Your task to perform on an android device: turn on the 24-hour format for clock Image 0: 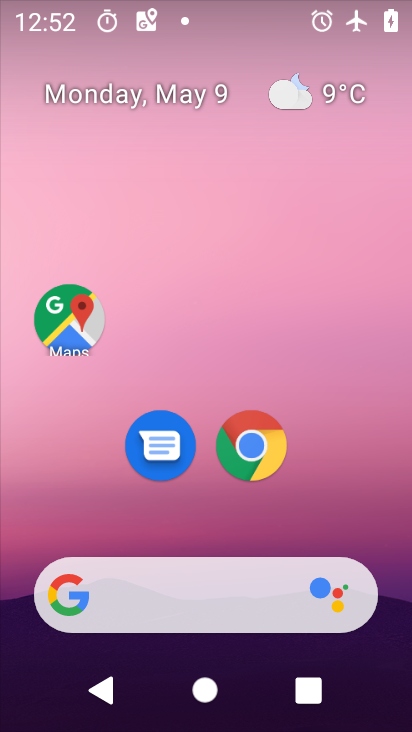
Step 0: drag from (358, 553) to (410, 85)
Your task to perform on an android device: turn on the 24-hour format for clock Image 1: 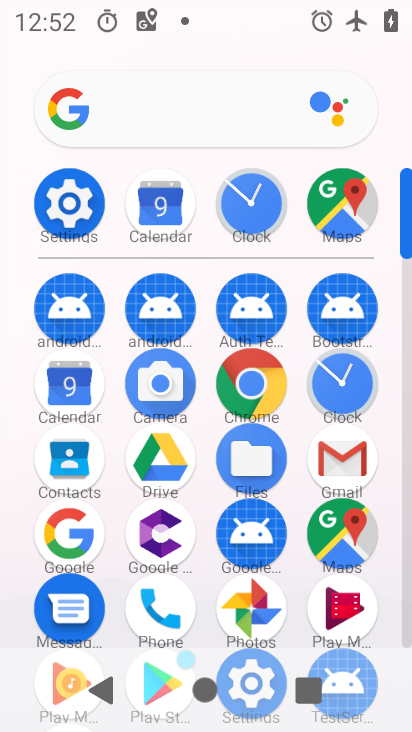
Step 1: click (255, 198)
Your task to perform on an android device: turn on the 24-hour format for clock Image 2: 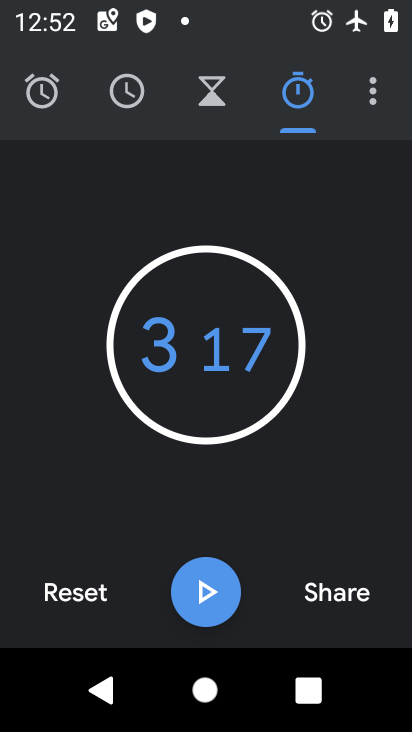
Step 2: click (375, 94)
Your task to perform on an android device: turn on the 24-hour format for clock Image 3: 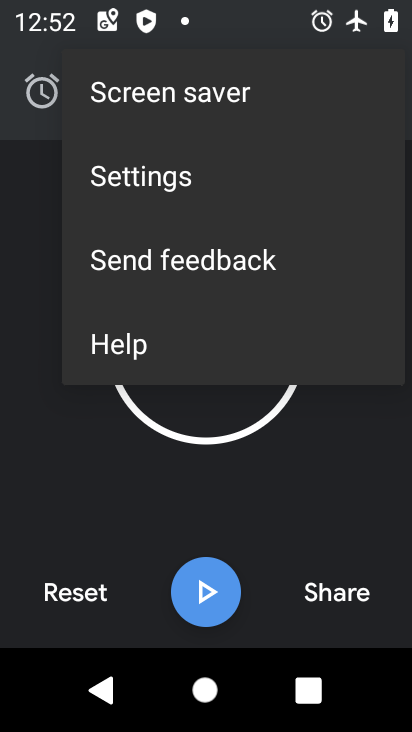
Step 3: click (131, 182)
Your task to perform on an android device: turn on the 24-hour format for clock Image 4: 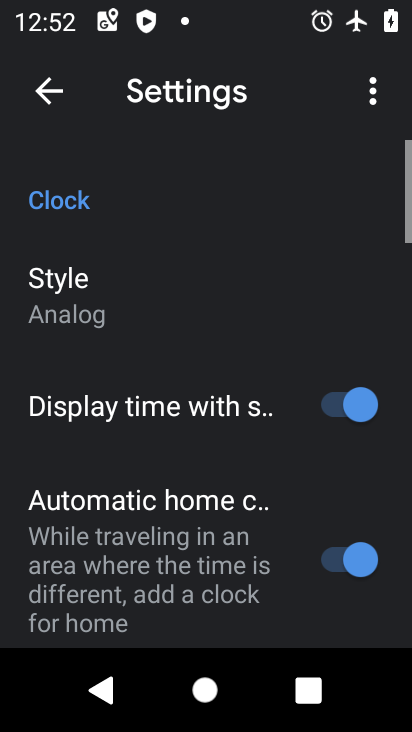
Step 4: drag from (183, 565) to (220, 204)
Your task to perform on an android device: turn on the 24-hour format for clock Image 5: 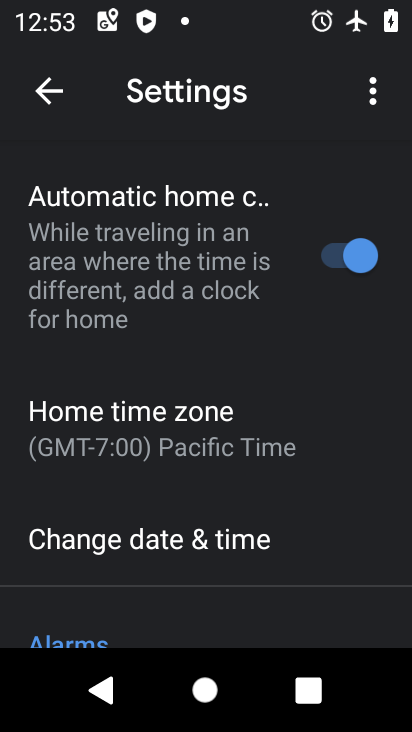
Step 5: click (162, 547)
Your task to perform on an android device: turn on the 24-hour format for clock Image 6: 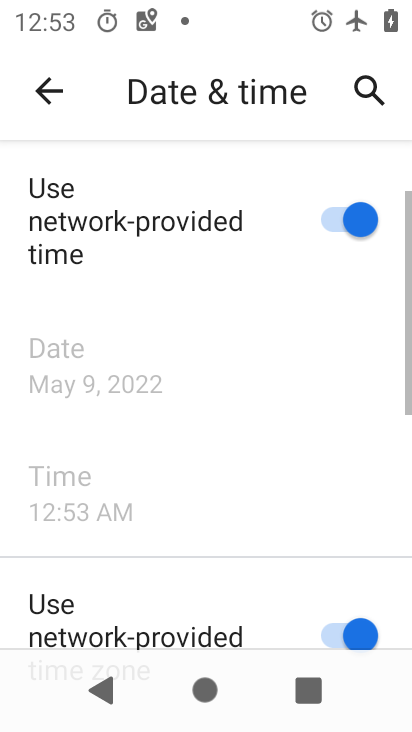
Step 6: drag from (204, 276) to (207, 124)
Your task to perform on an android device: turn on the 24-hour format for clock Image 7: 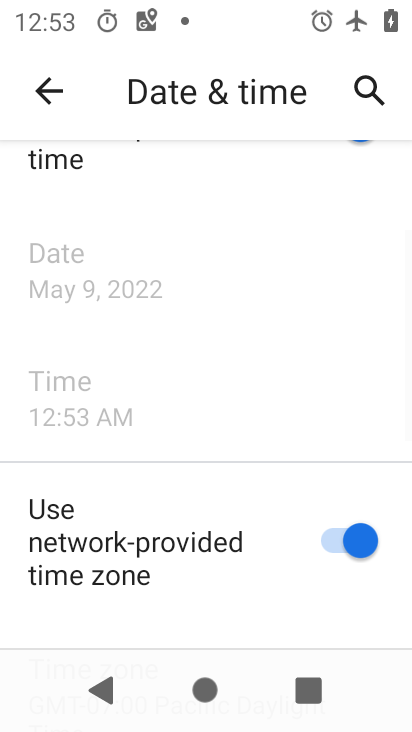
Step 7: drag from (196, 581) to (221, 144)
Your task to perform on an android device: turn on the 24-hour format for clock Image 8: 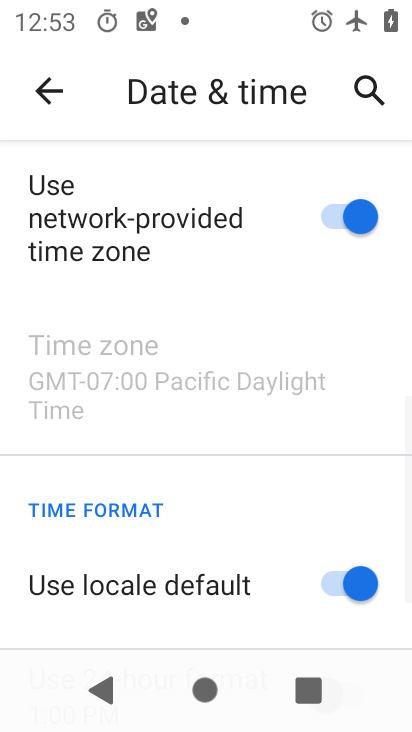
Step 8: drag from (202, 546) to (213, 165)
Your task to perform on an android device: turn on the 24-hour format for clock Image 9: 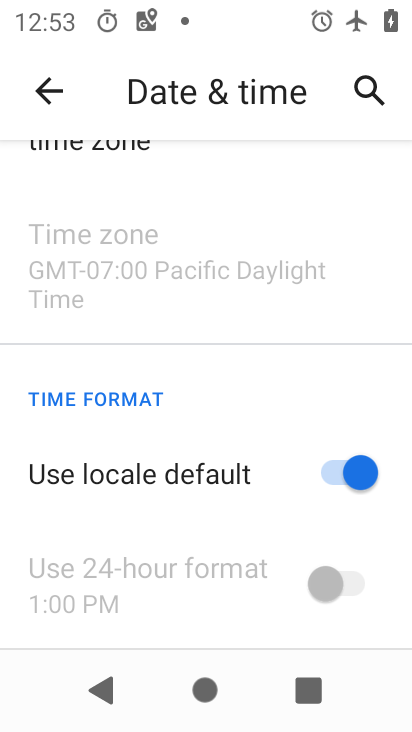
Step 9: drag from (142, 599) to (168, 304)
Your task to perform on an android device: turn on the 24-hour format for clock Image 10: 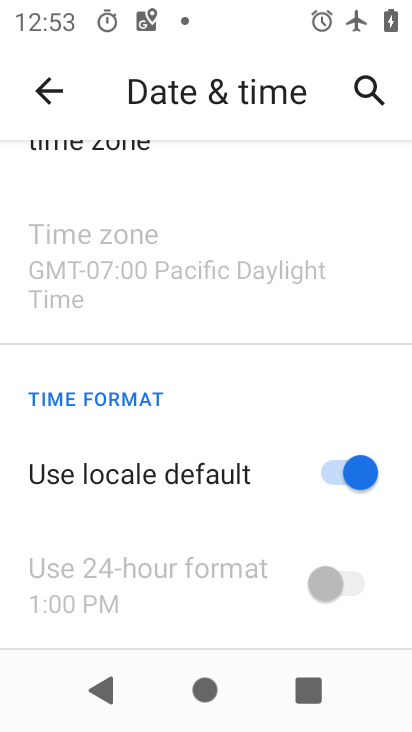
Step 10: click (344, 471)
Your task to perform on an android device: turn on the 24-hour format for clock Image 11: 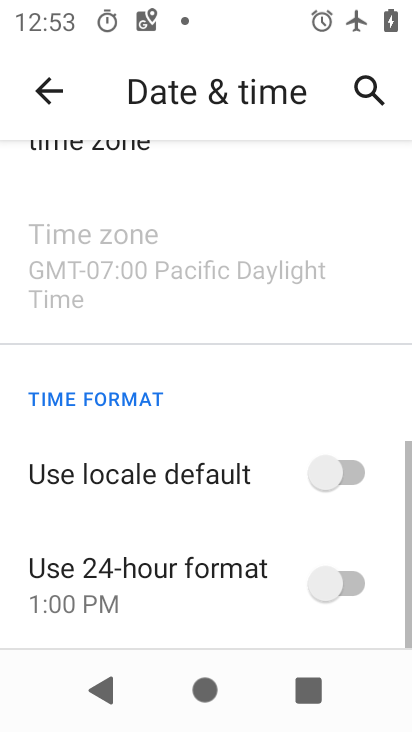
Step 11: click (315, 579)
Your task to perform on an android device: turn on the 24-hour format for clock Image 12: 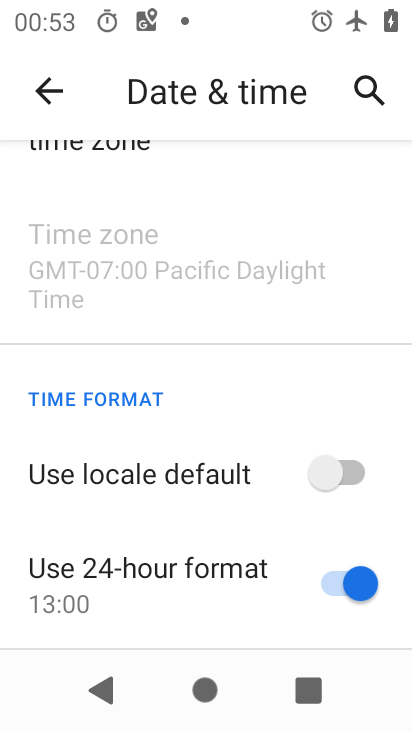
Step 12: task complete